Your task to perform on an android device: Set the phone to "Do not disturb". Image 0: 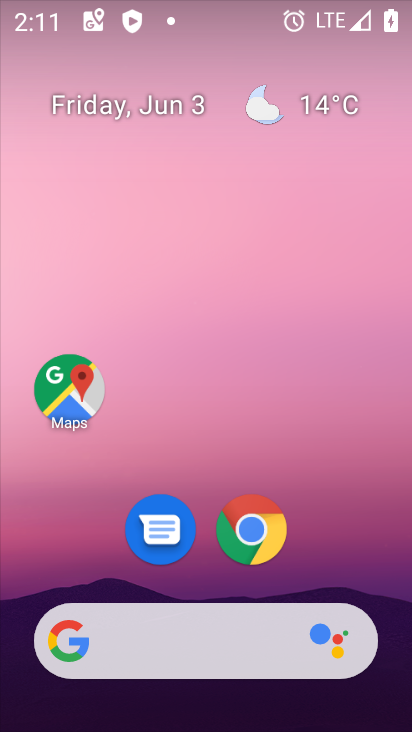
Step 0: drag from (374, 558) to (384, 207)
Your task to perform on an android device: Set the phone to "Do not disturb". Image 1: 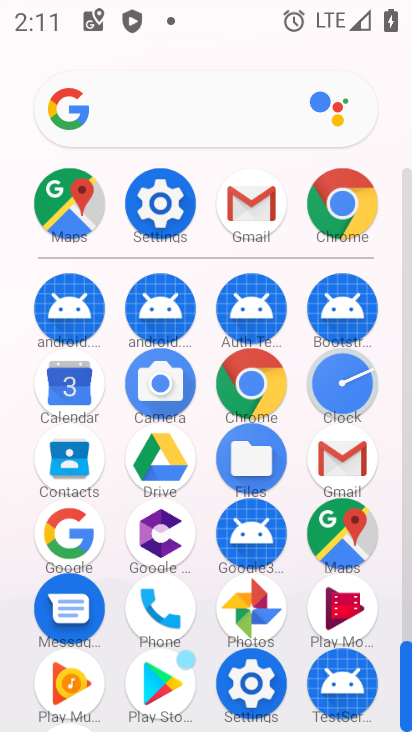
Step 1: click (171, 223)
Your task to perform on an android device: Set the phone to "Do not disturb". Image 2: 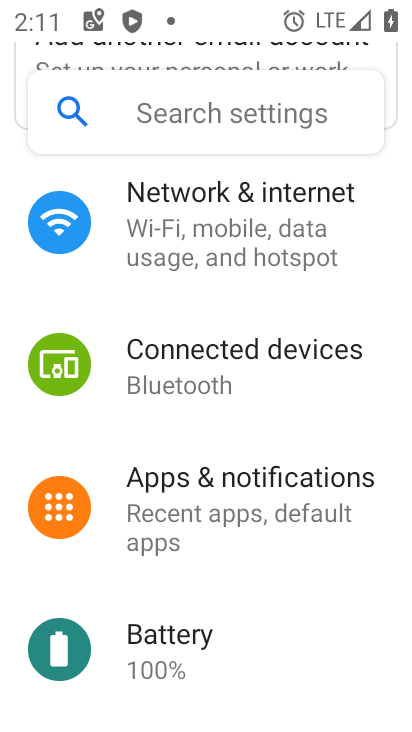
Step 2: drag from (372, 413) to (383, 325)
Your task to perform on an android device: Set the phone to "Do not disturb". Image 3: 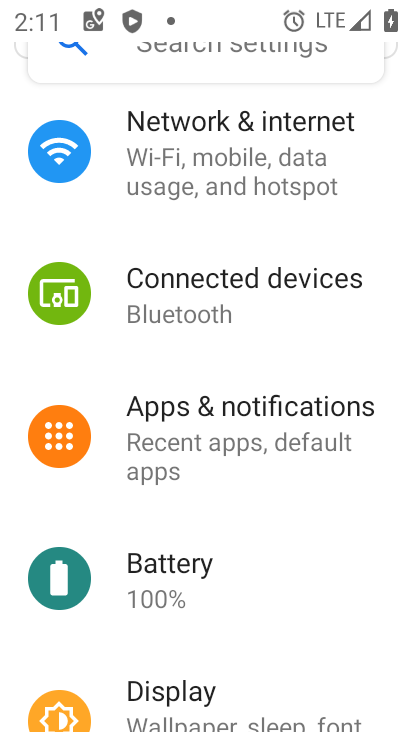
Step 3: drag from (355, 472) to (363, 365)
Your task to perform on an android device: Set the phone to "Do not disturb". Image 4: 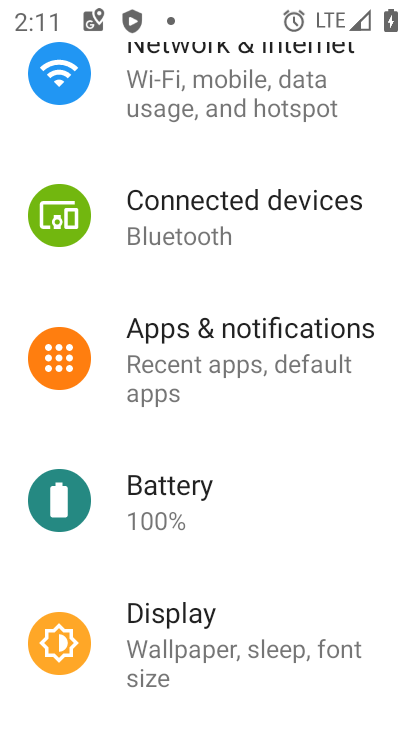
Step 4: drag from (353, 485) to (355, 377)
Your task to perform on an android device: Set the phone to "Do not disturb". Image 5: 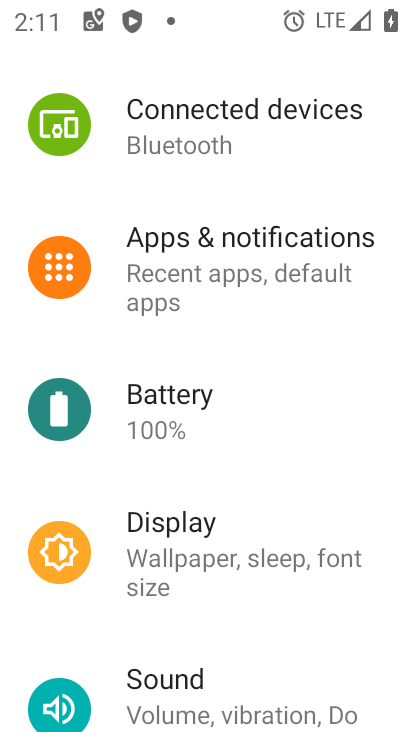
Step 5: drag from (337, 509) to (349, 401)
Your task to perform on an android device: Set the phone to "Do not disturb". Image 6: 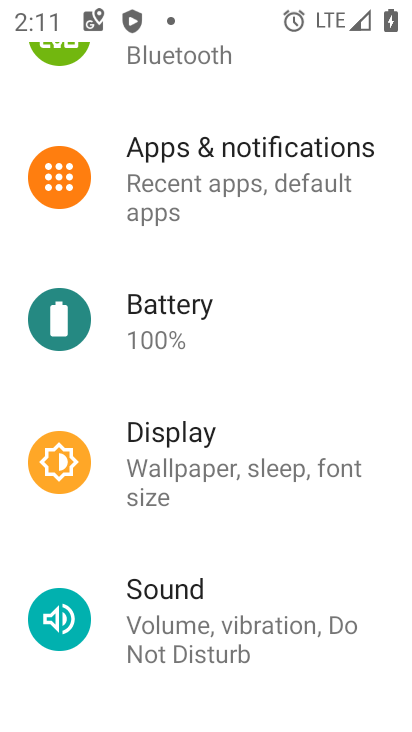
Step 6: drag from (360, 542) to (374, 402)
Your task to perform on an android device: Set the phone to "Do not disturb". Image 7: 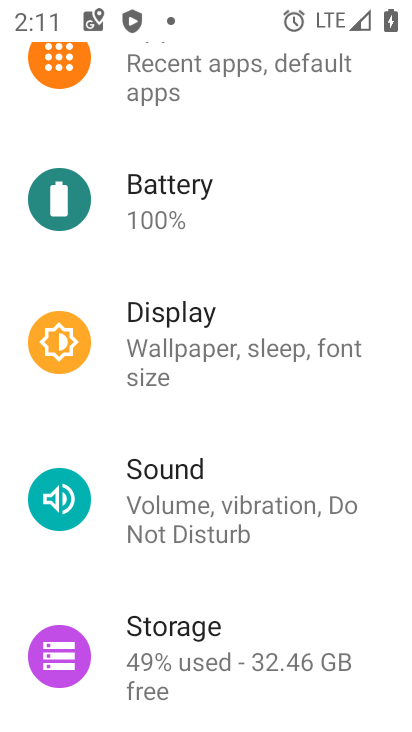
Step 7: click (297, 523)
Your task to perform on an android device: Set the phone to "Do not disturb". Image 8: 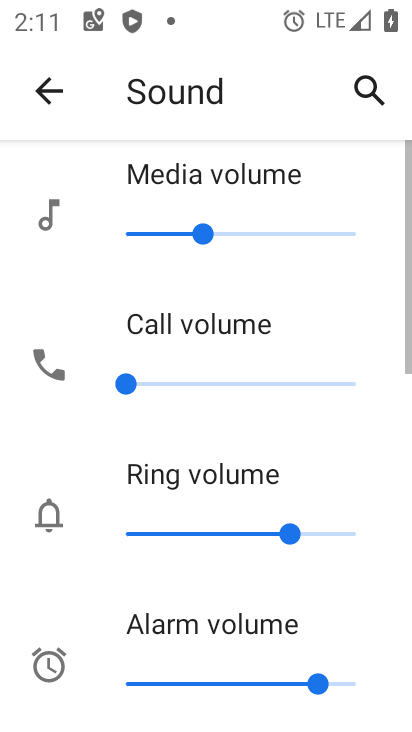
Step 8: drag from (351, 574) to (348, 458)
Your task to perform on an android device: Set the phone to "Do not disturb". Image 9: 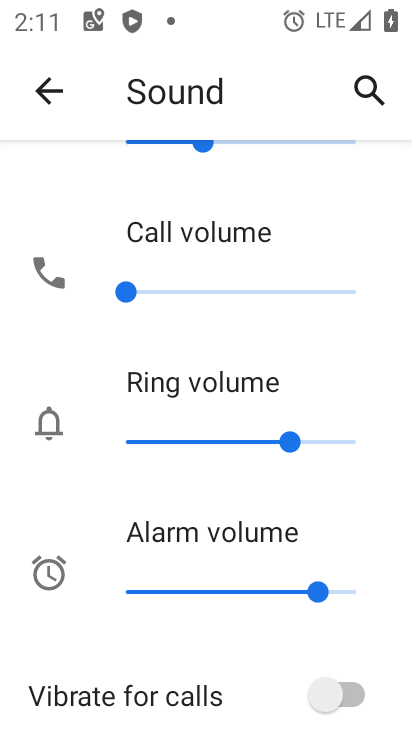
Step 9: drag from (361, 579) to (369, 418)
Your task to perform on an android device: Set the phone to "Do not disturb". Image 10: 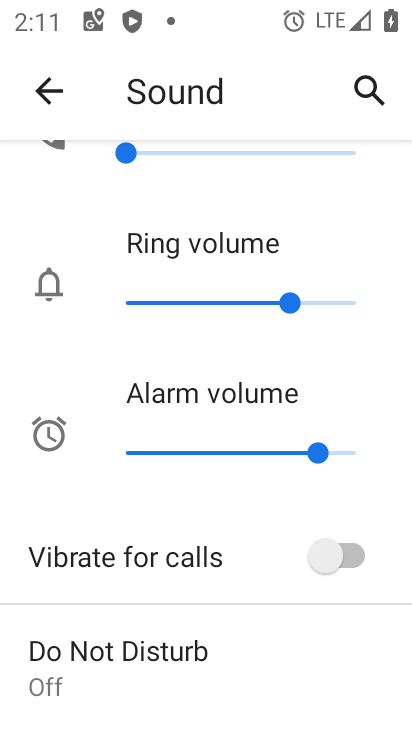
Step 10: drag from (366, 625) to (378, 423)
Your task to perform on an android device: Set the phone to "Do not disturb". Image 11: 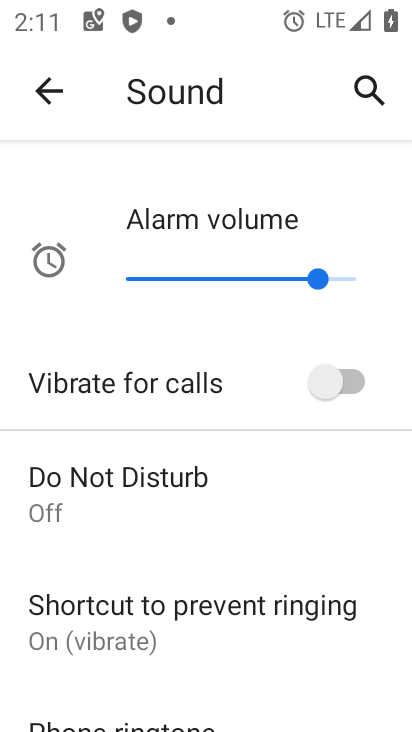
Step 11: click (160, 494)
Your task to perform on an android device: Set the phone to "Do not disturb". Image 12: 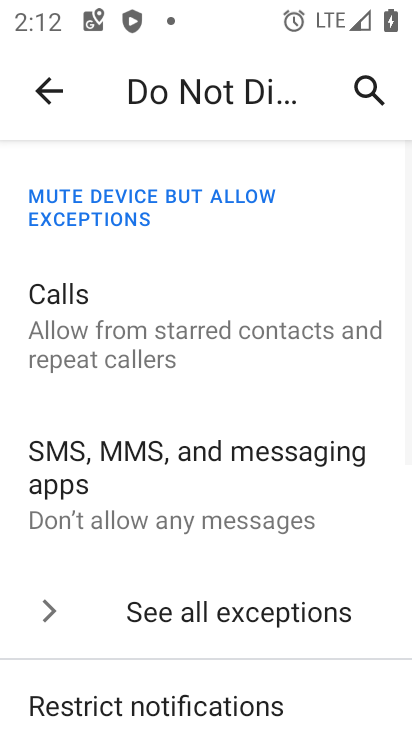
Step 12: drag from (268, 563) to (289, 434)
Your task to perform on an android device: Set the phone to "Do not disturb". Image 13: 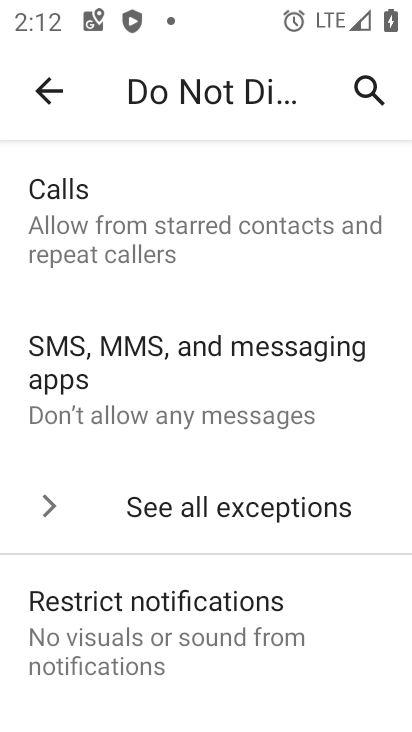
Step 13: drag from (308, 564) to (313, 404)
Your task to perform on an android device: Set the phone to "Do not disturb". Image 14: 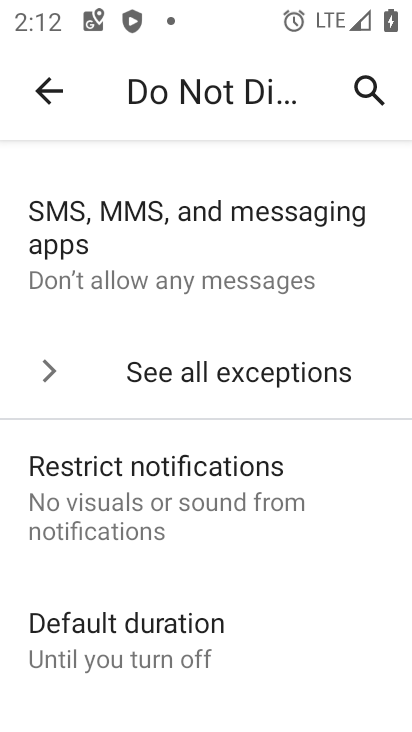
Step 14: drag from (319, 591) to (333, 426)
Your task to perform on an android device: Set the phone to "Do not disturb". Image 15: 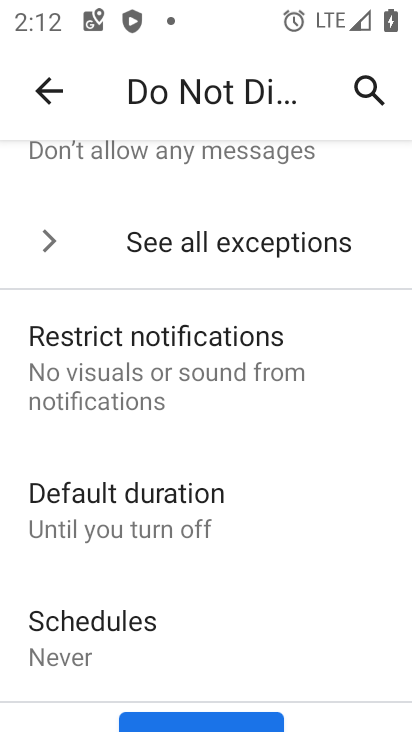
Step 15: drag from (313, 578) to (316, 403)
Your task to perform on an android device: Set the phone to "Do not disturb". Image 16: 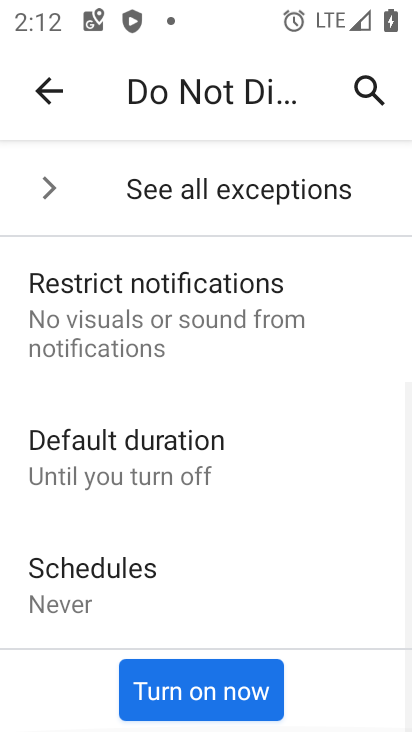
Step 16: click (219, 697)
Your task to perform on an android device: Set the phone to "Do not disturb". Image 17: 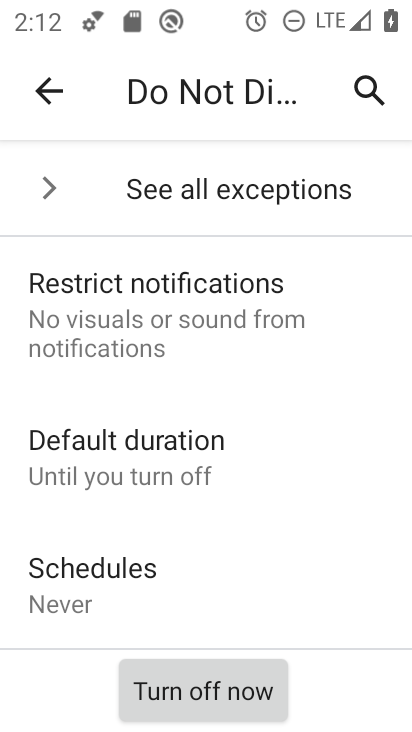
Step 17: task complete